Your task to perform on an android device: check the backup settings in the google photos Image 0: 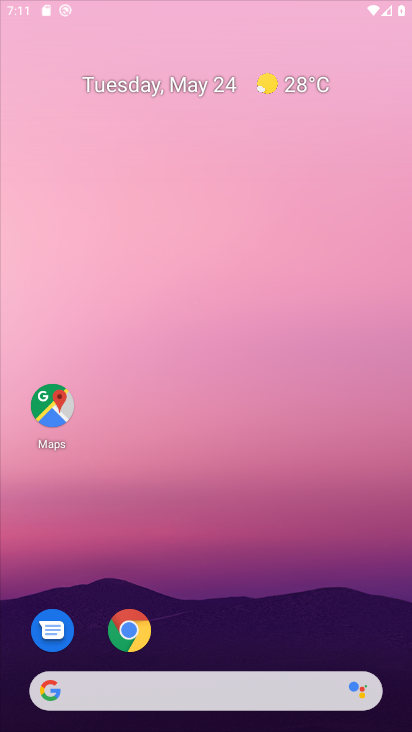
Step 0: press home button
Your task to perform on an android device: check the backup settings in the google photos Image 1: 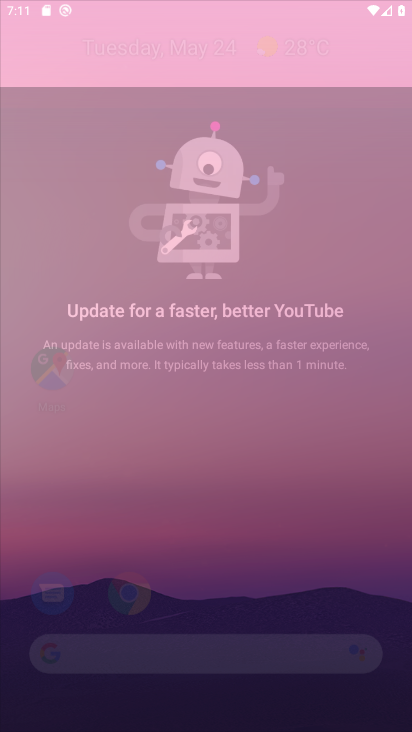
Step 1: drag from (240, 576) to (163, 169)
Your task to perform on an android device: check the backup settings in the google photos Image 2: 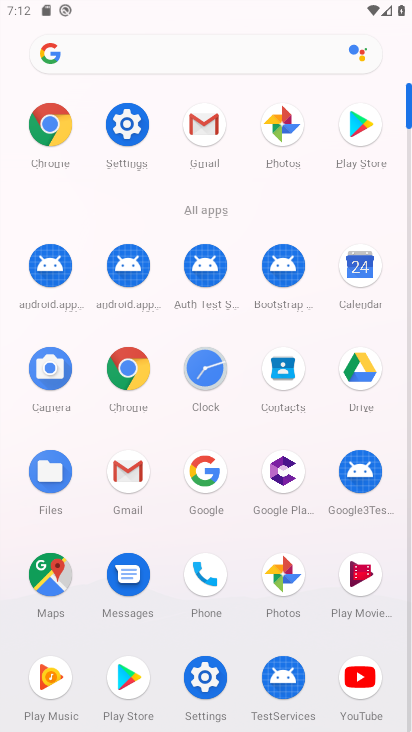
Step 2: click (273, 573)
Your task to perform on an android device: check the backup settings in the google photos Image 3: 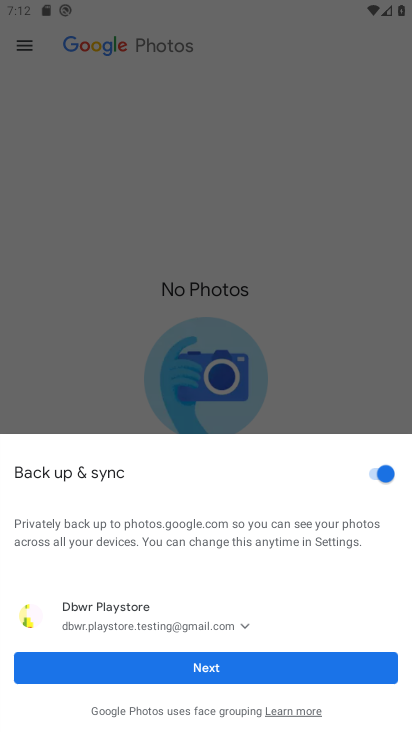
Step 3: click (246, 674)
Your task to perform on an android device: check the backup settings in the google photos Image 4: 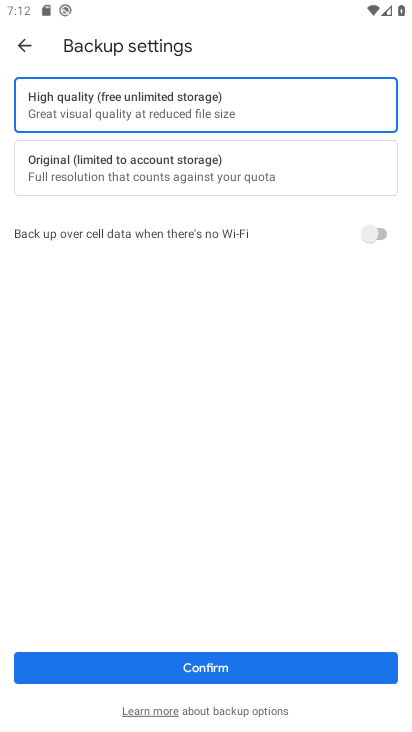
Step 4: click (246, 674)
Your task to perform on an android device: check the backup settings in the google photos Image 5: 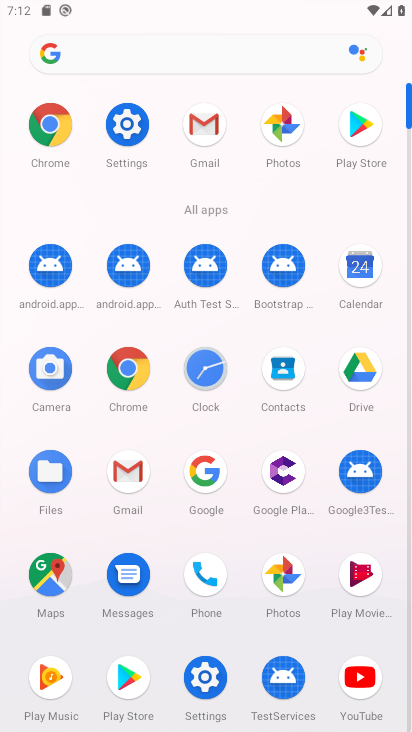
Step 5: click (293, 591)
Your task to perform on an android device: check the backup settings in the google photos Image 6: 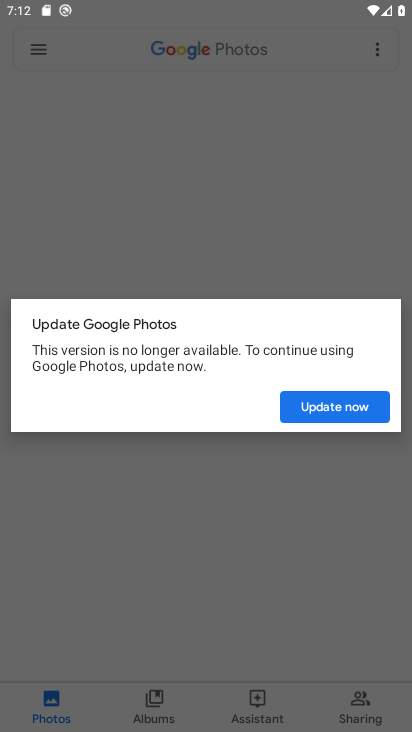
Step 6: click (319, 406)
Your task to perform on an android device: check the backup settings in the google photos Image 7: 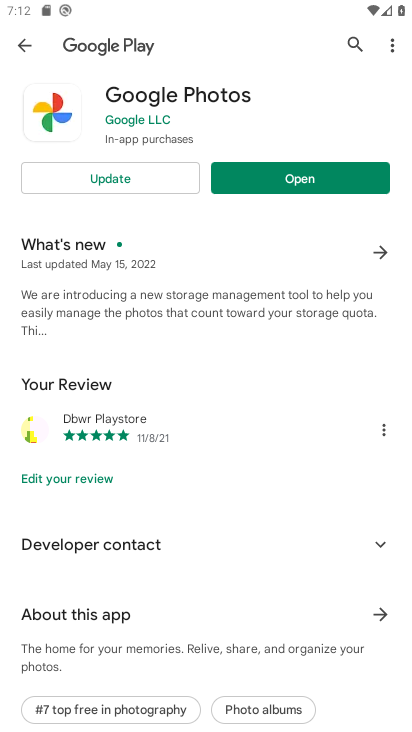
Step 7: click (299, 171)
Your task to perform on an android device: check the backup settings in the google photos Image 8: 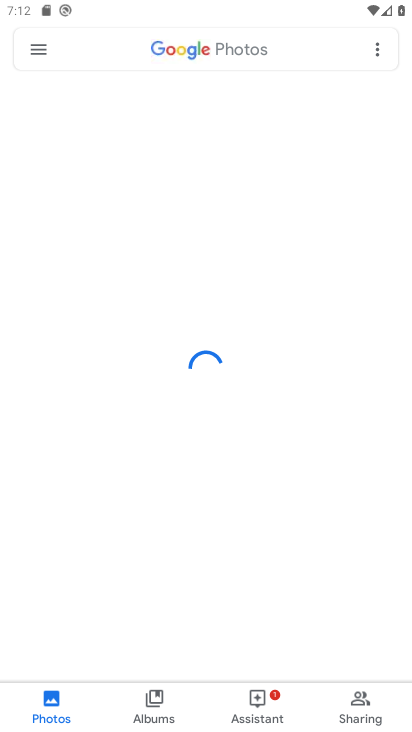
Step 8: click (43, 52)
Your task to perform on an android device: check the backup settings in the google photos Image 9: 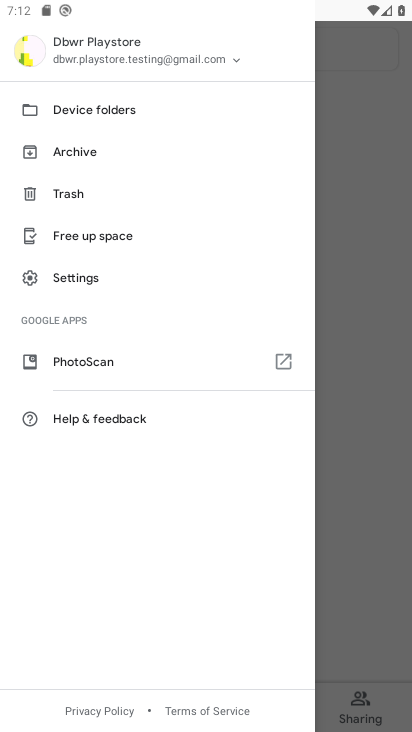
Step 9: click (77, 265)
Your task to perform on an android device: check the backup settings in the google photos Image 10: 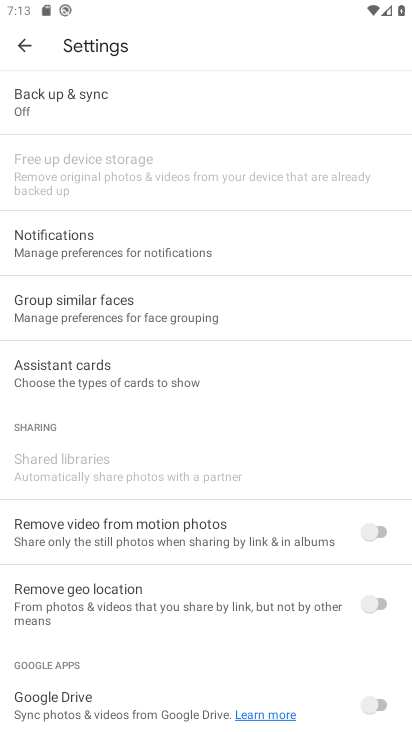
Step 10: click (119, 109)
Your task to perform on an android device: check the backup settings in the google photos Image 11: 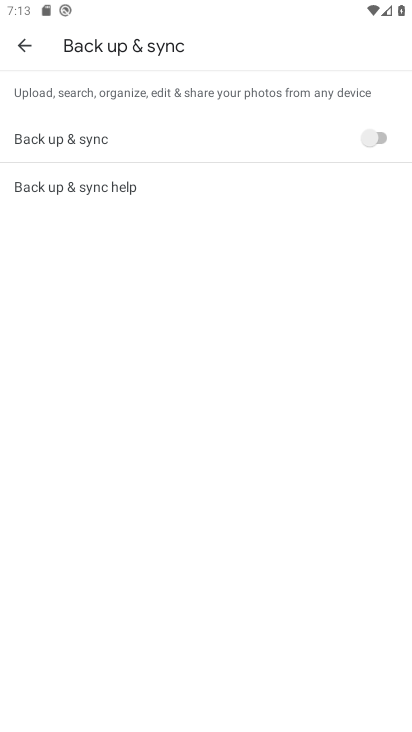
Step 11: task complete